Your task to perform on an android device: find photos in the google photos app Image 0: 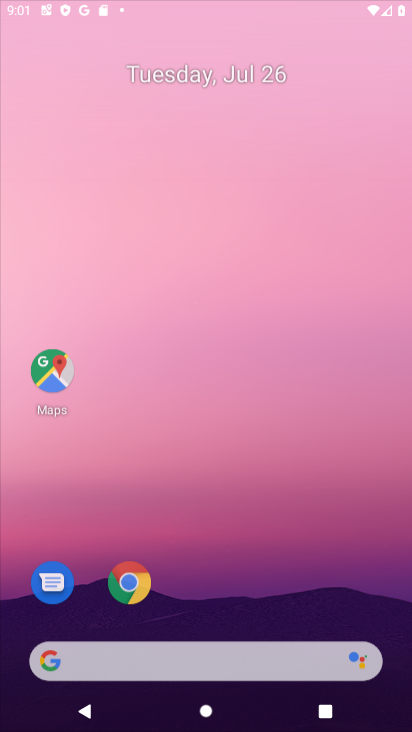
Step 0: press home button
Your task to perform on an android device: find photos in the google photos app Image 1: 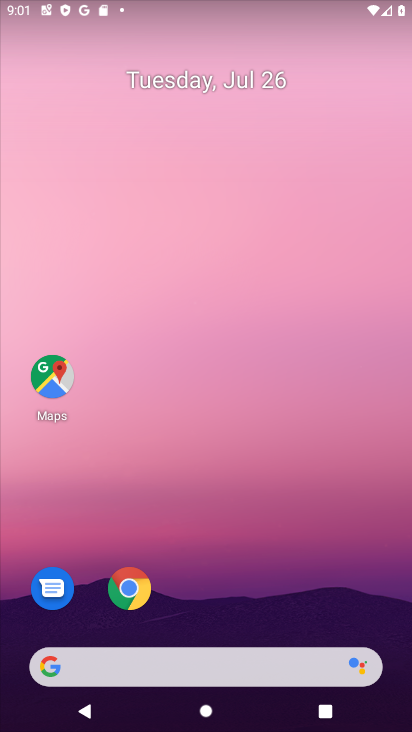
Step 1: drag from (219, 620) to (248, 0)
Your task to perform on an android device: find photos in the google photos app Image 2: 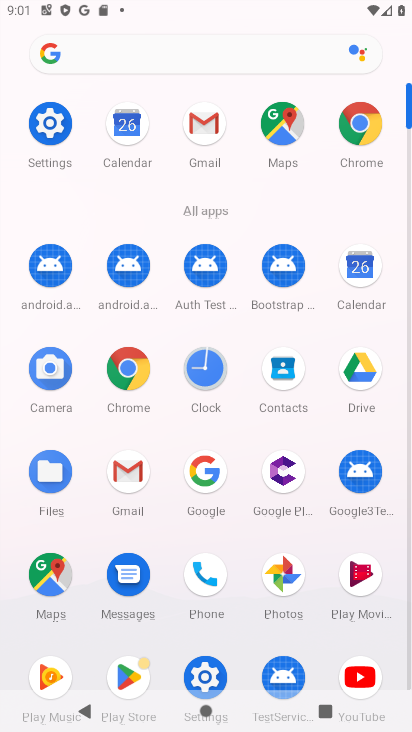
Step 2: click (283, 567)
Your task to perform on an android device: find photos in the google photos app Image 3: 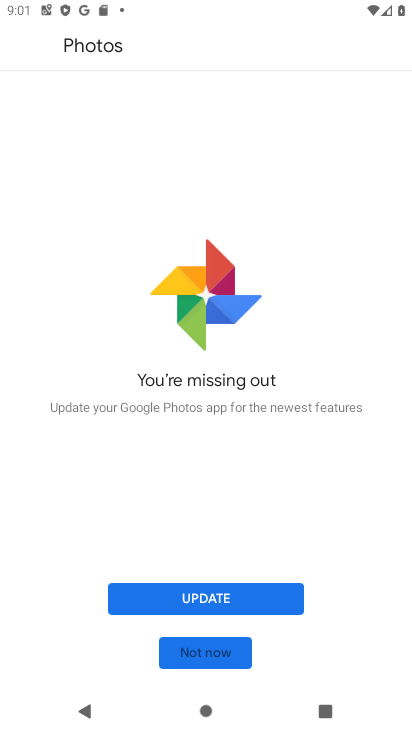
Step 3: click (209, 594)
Your task to perform on an android device: find photos in the google photos app Image 4: 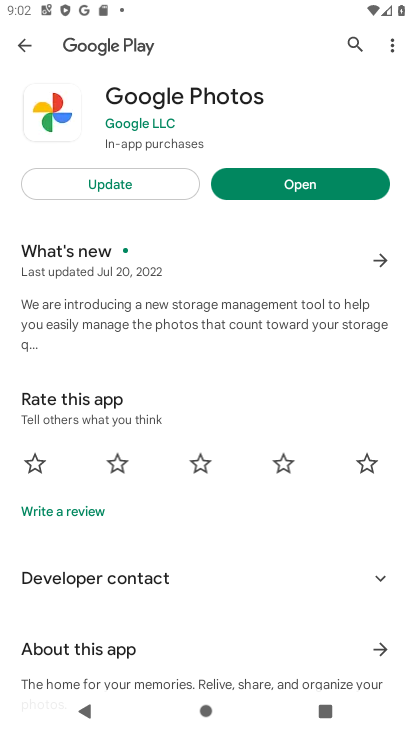
Step 4: click (120, 188)
Your task to perform on an android device: find photos in the google photos app Image 5: 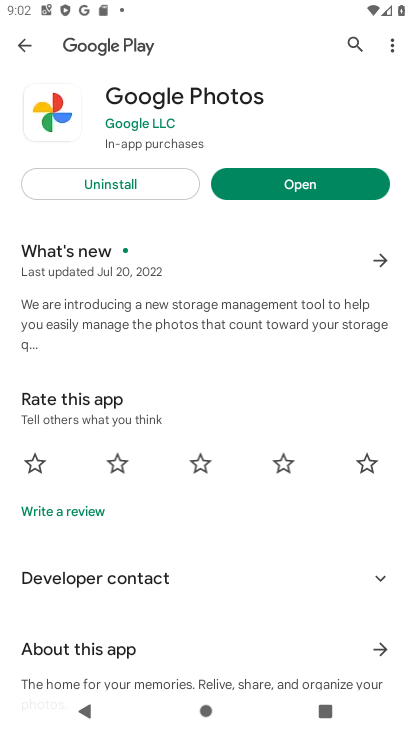
Step 5: click (294, 187)
Your task to perform on an android device: find photos in the google photos app Image 6: 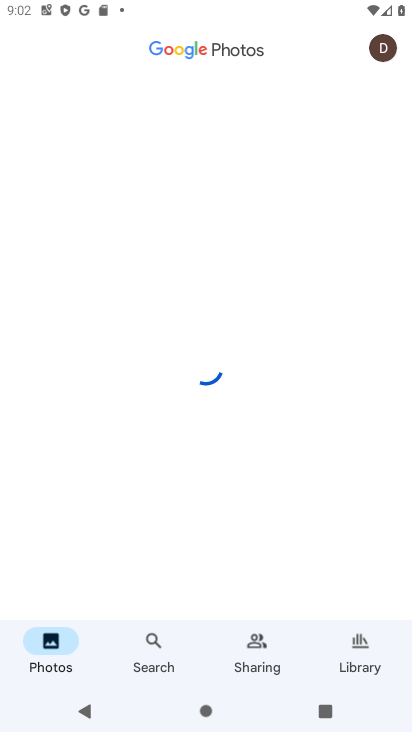
Step 6: task complete